Your task to perform on an android device: Show me the alarms in the clock app Image 0: 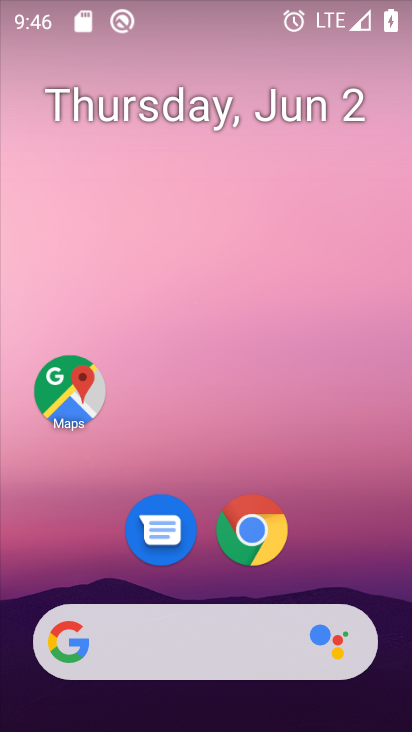
Step 0: drag from (191, 603) to (156, 364)
Your task to perform on an android device: Show me the alarms in the clock app Image 1: 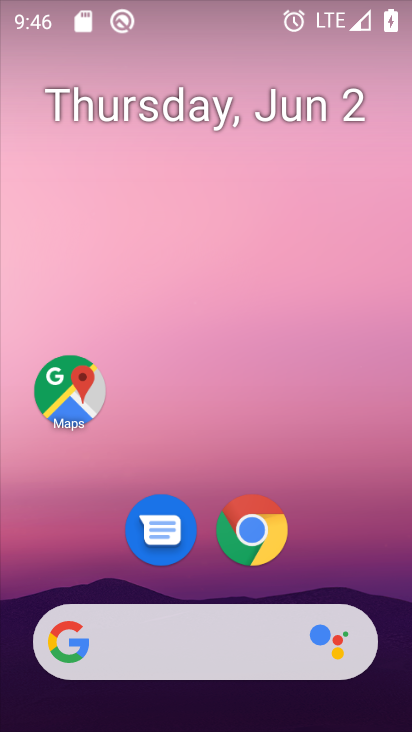
Step 1: drag from (165, 563) to (148, 260)
Your task to perform on an android device: Show me the alarms in the clock app Image 2: 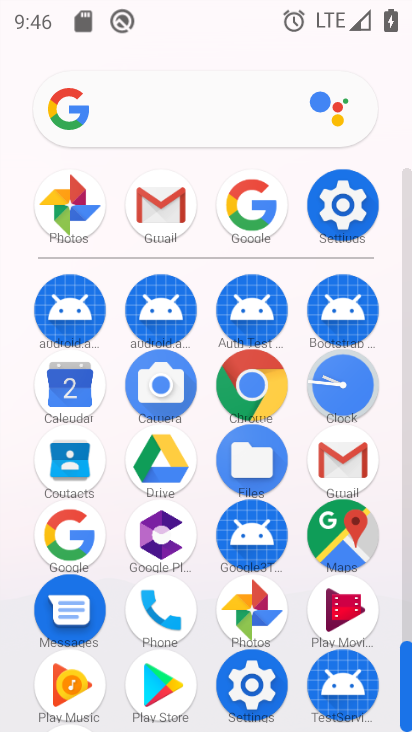
Step 2: click (346, 393)
Your task to perform on an android device: Show me the alarms in the clock app Image 3: 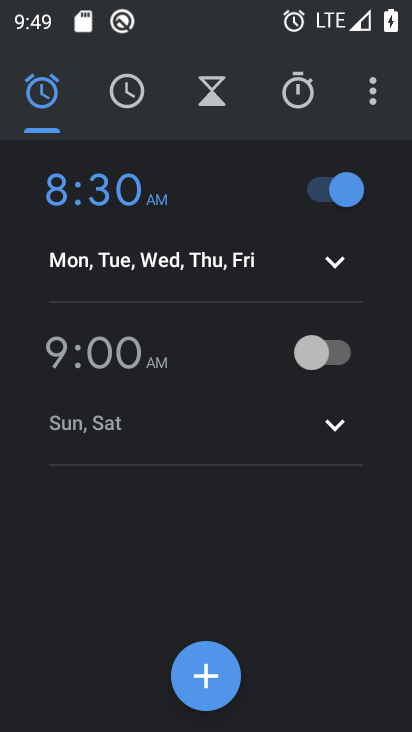
Step 3: task complete